Your task to perform on an android device: snooze an email in the gmail app Image 0: 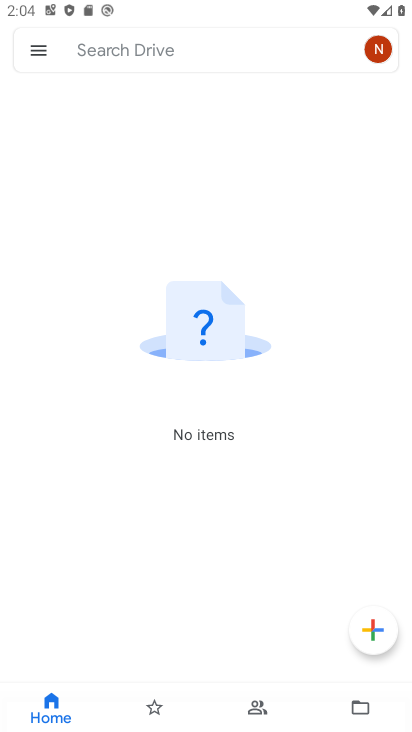
Step 0: press home button
Your task to perform on an android device: snooze an email in the gmail app Image 1: 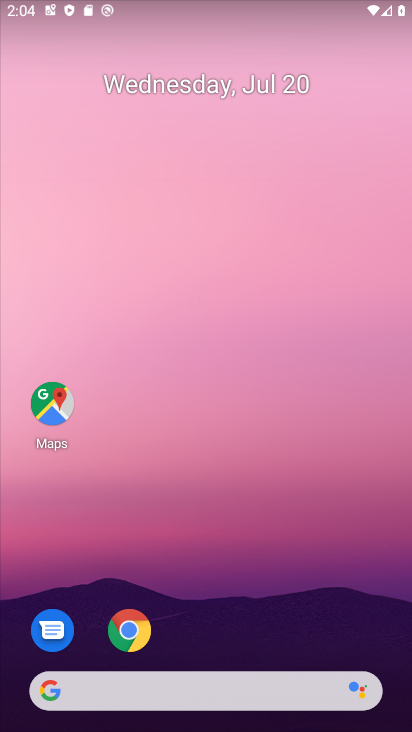
Step 1: drag from (375, 611) to (394, 79)
Your task to perform on an android device: snooze an email in the gmail app Image 2: 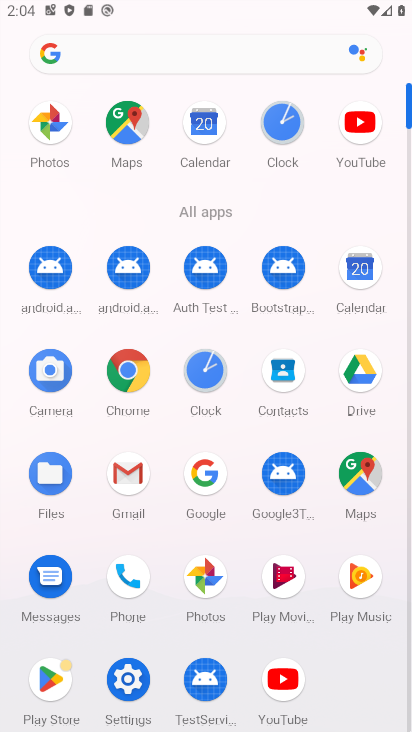
Step 2: click (135, 469)
Your task to perform on an android device: snooze an email in the gmail app Image 3: 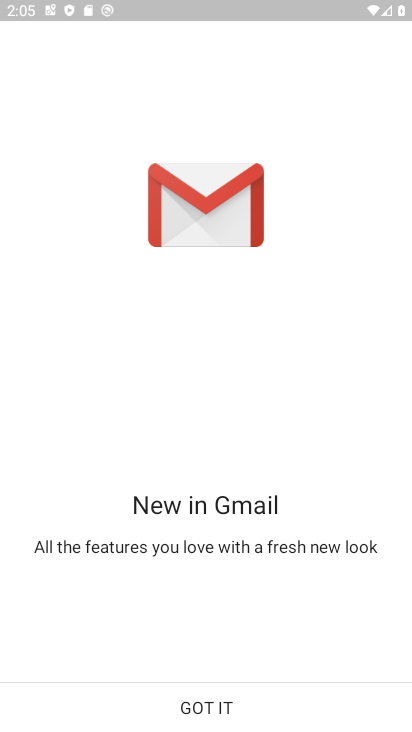
Step 3: click (216, 703)
Your task to perform on an android device: snooze an email in the gmail app Image 4: 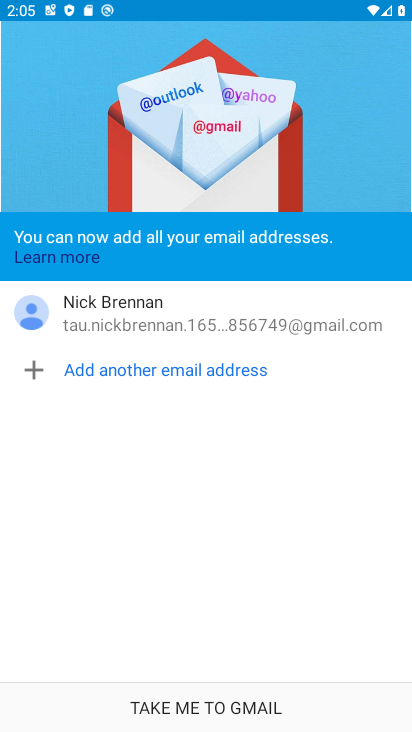
Step 4: click (216, 703)
Your task to perform on an android device: snooze an email in the gmail app Image 5: 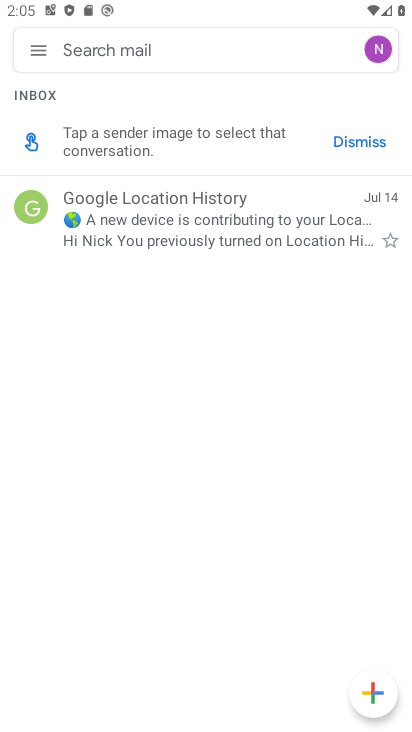
Step 5: click (35, 47)
Your task to perform on an android device: snooze an email in the gmail app Image 6: 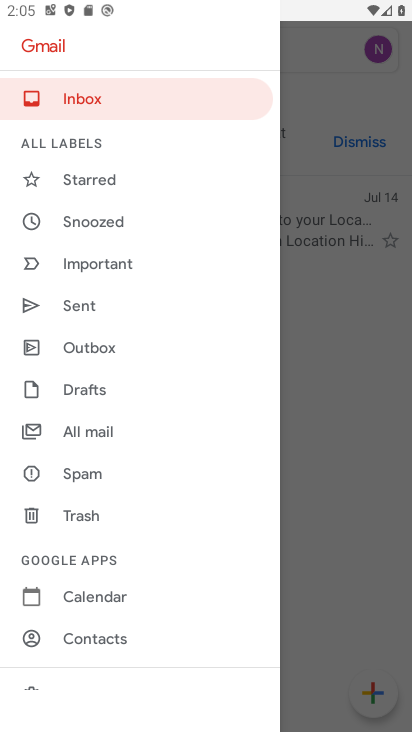
Step 6: click (147, 220)
Your task to perform on an android device: snooze an email in the gmail app Image 7: 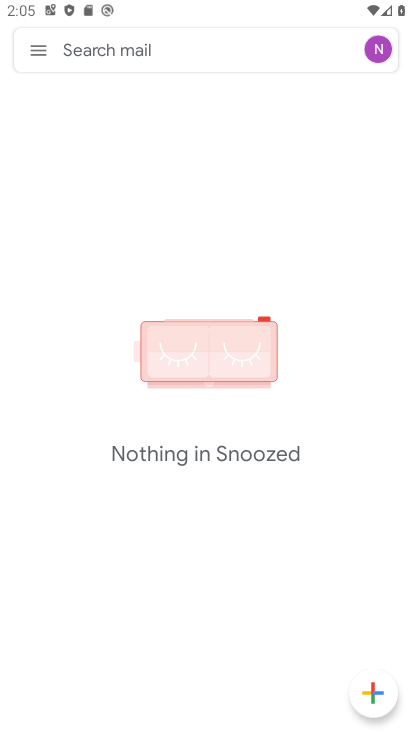
Step 7: task complete